Your task to perform on an android device: Open the stopwatch Image 0: 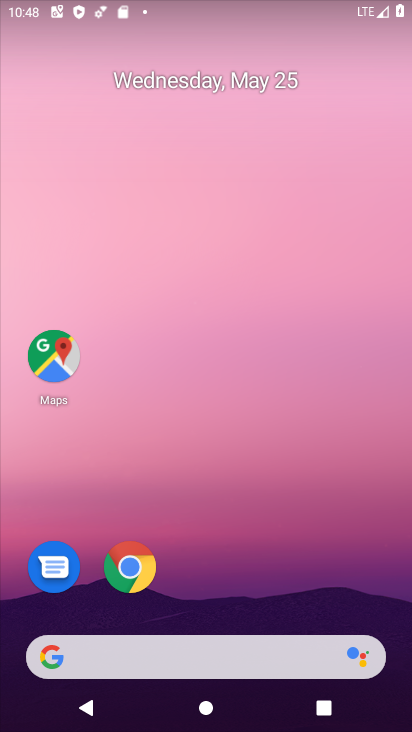
Step 0: drag from (267, 668) to (270, 132)
Your task to perform on an android device: Open the stopwatch Image 1: 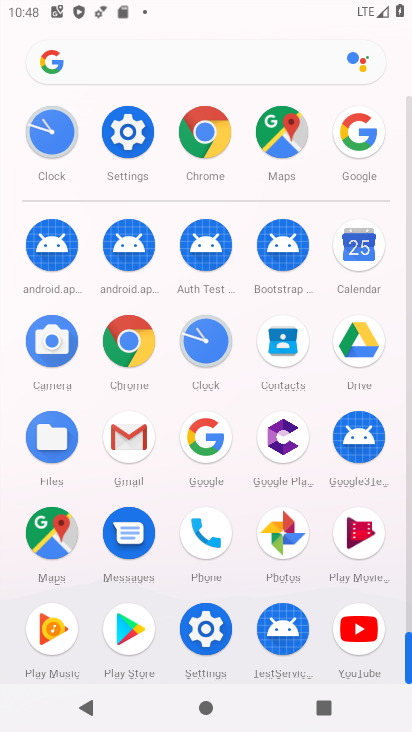
Step 1: click (214, 339)
Your task to perform on an android device: Open the stopwatch Image 2: 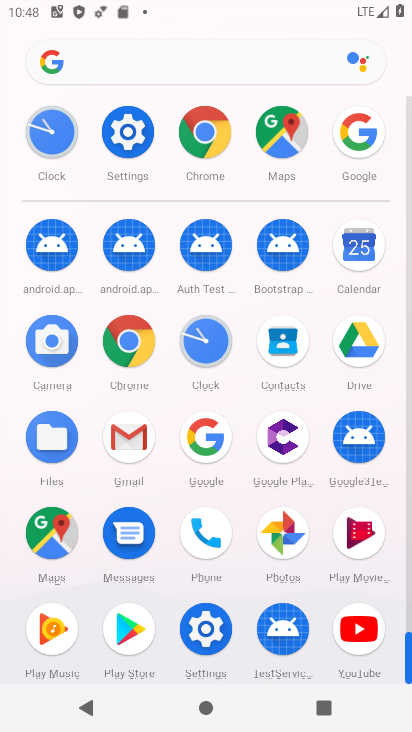
Step 2: click (210, 341)
Your task to perform on an android device: Open the stopwatch Image 3: 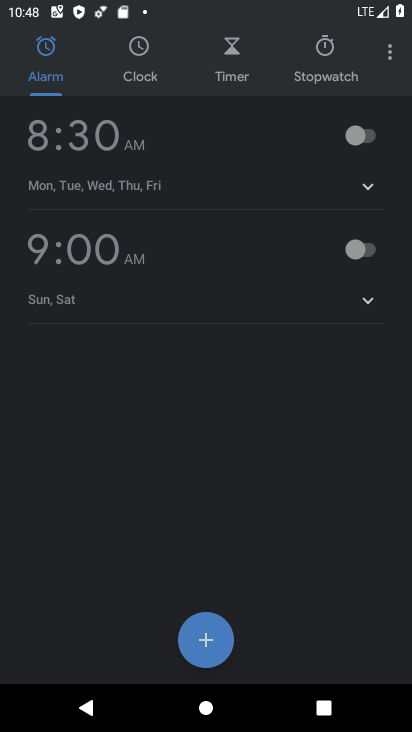
Step 3: click (209, 342)
Your task to perform on an android device: Open the stopwatch Image 4: 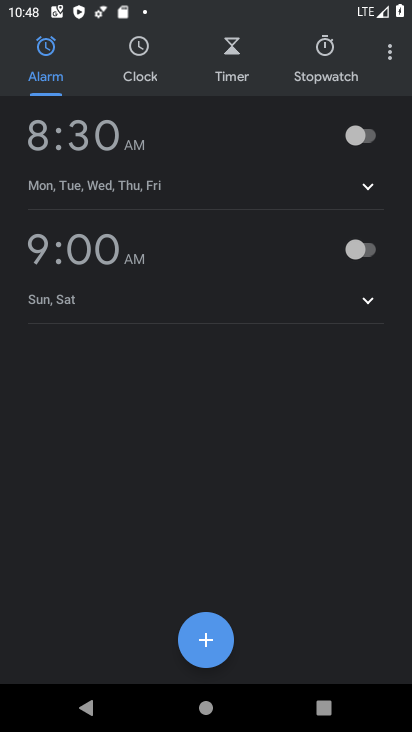
Step 4: click (326, 53)
Your task to perform on an android device: Open the stopwatch Image 5: 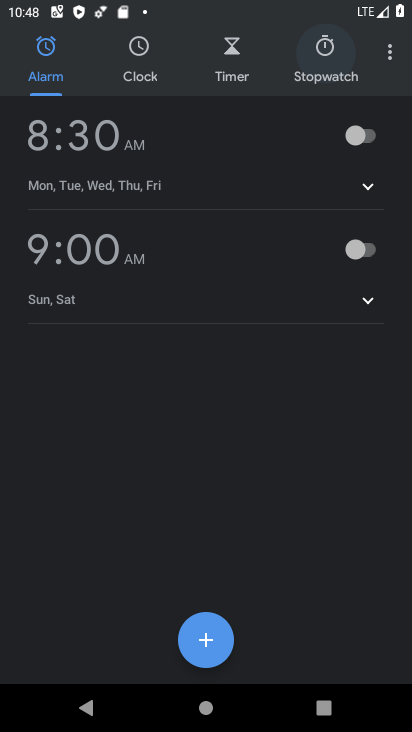
Step 5: click (327, 54)
Your task to perform on an android device: Open the stopwatch Image 6: 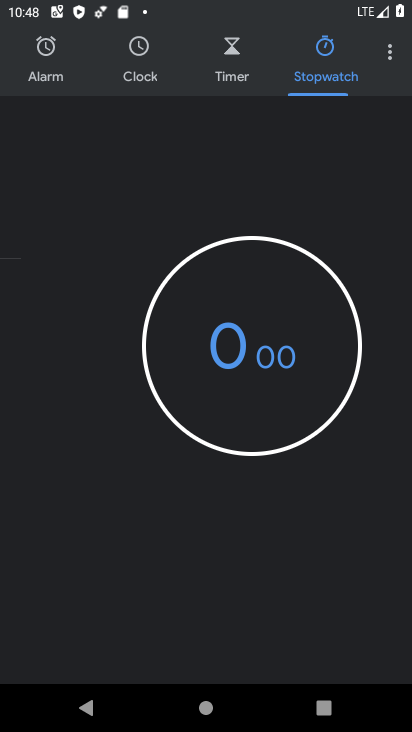
Step 6: click (327, 54)
Your task to perform on an android device: Open the stopwatch Image 7: 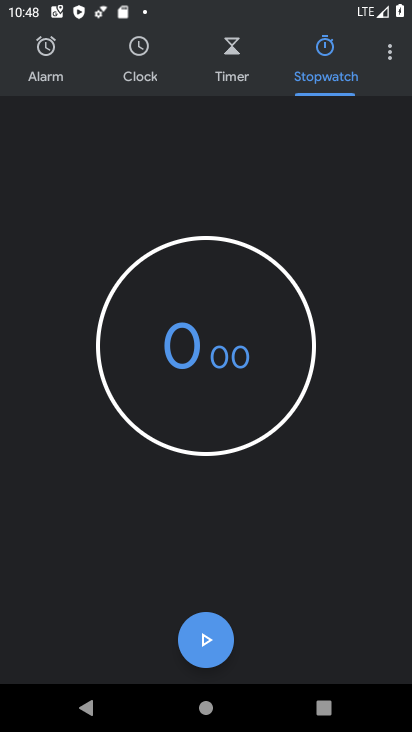
Step 7: click (205, 635)
Your task to perform on an android device: Open the stopwatch Image 8: 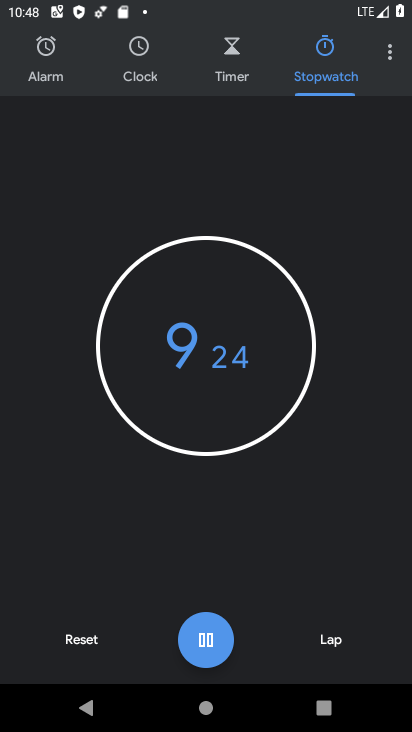
Step 8: click (202, 643)
Your task to perform on an android device: Open the stopwatch Image 9: 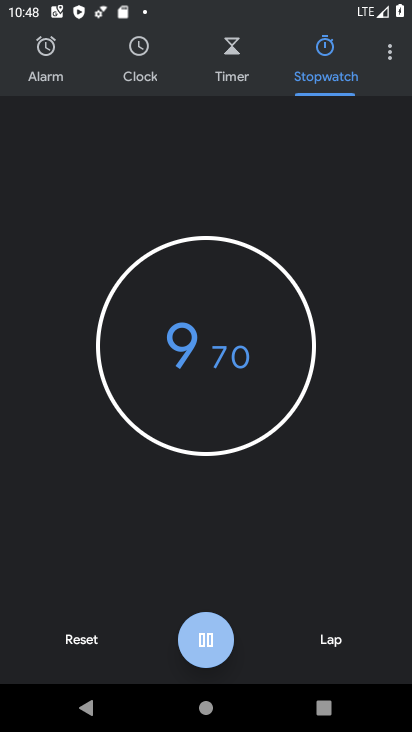
Step 9: click (202, 641)
Your task to perform on an android device: Open the stopwatch Image 10: 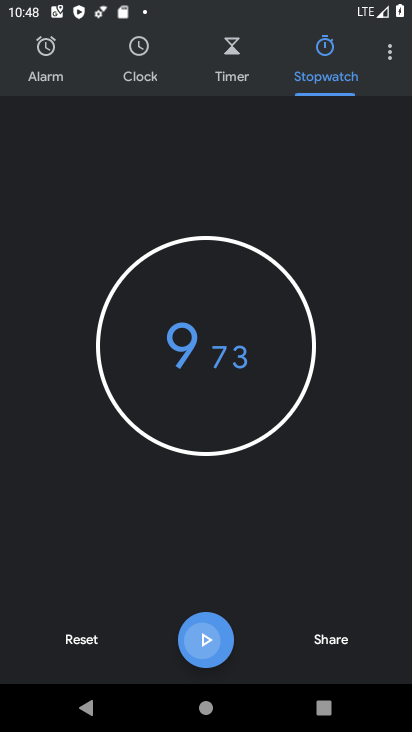
Step 10: click (202, 641)
Your task to perform on an android device: Open the stopwatch Image 11: 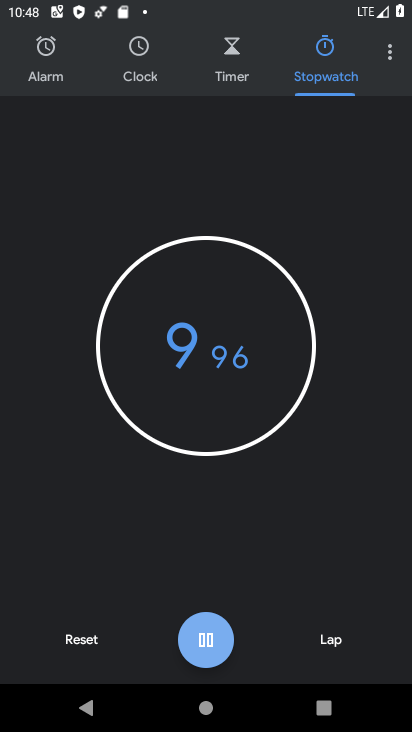
Step 11: click (202, 641)
Your task to perform on an android device: Open the stopwatch Image 12: 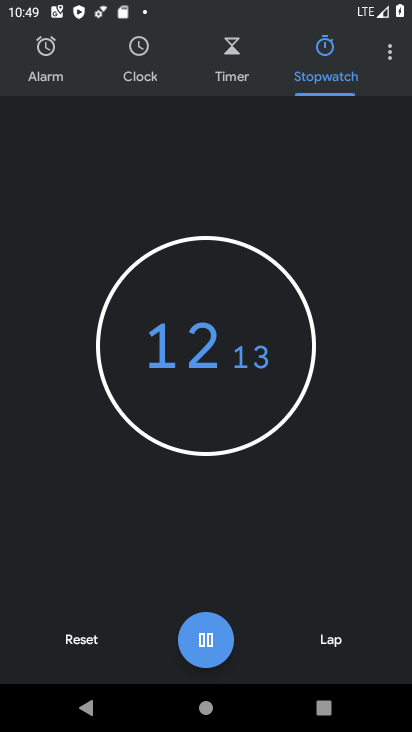
Step 12: click (206, 637)
Your task to perform on an android device: Open the stopwatch Image 13: 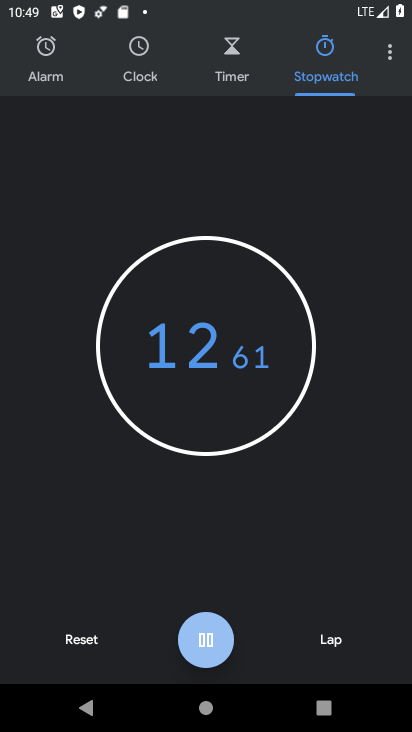
Step 13: click (205, 636)
Your task to perform on an android device: Open the stopwatch Image 14: 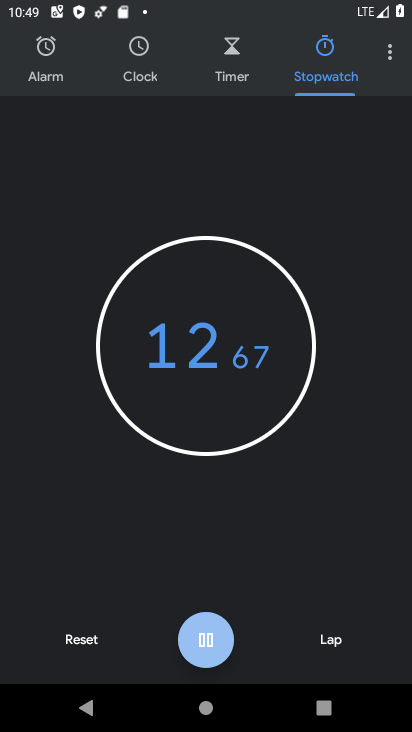
Step 14: click (205, 636)
Your task to perform on an android device: Open the stopwatch Image 15: 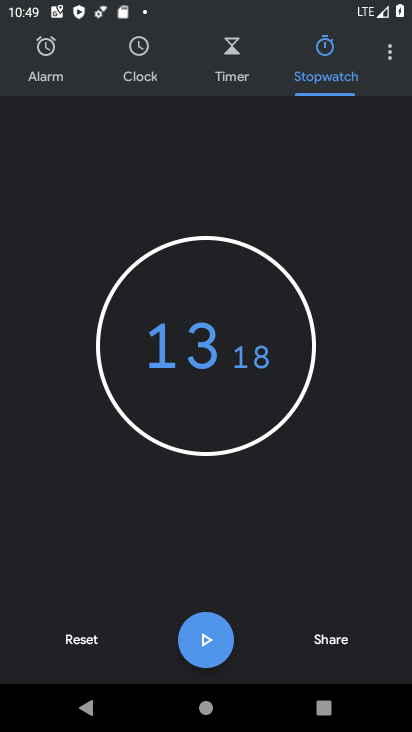
Step 15: task complete